Your task to perform on an android device: find which apps use the phone's location Image 0: 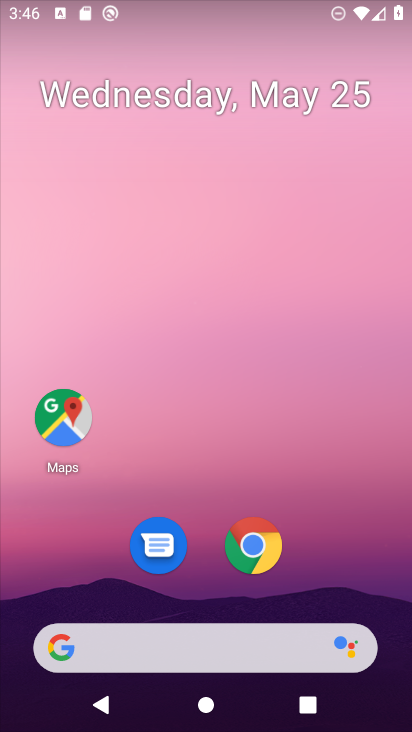
Step 0: click (376, 559)
Your task to perform on an android device: find which apps use the phone's location Image 1: 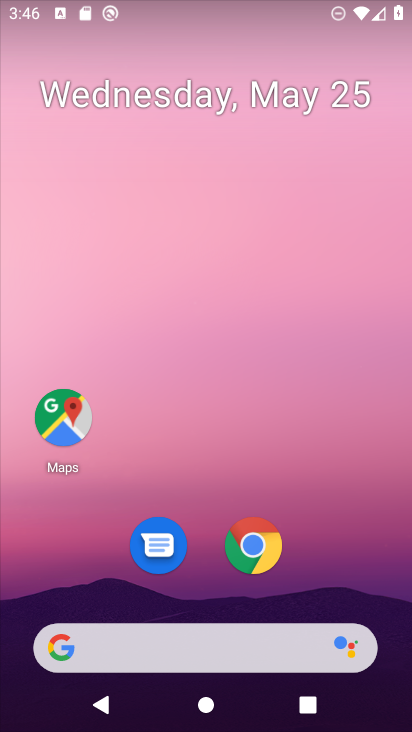
Step 1: drag from (376, 559) to (320, 220)
Your task to perform on an android device: find which apps use the phone's location Image 2: 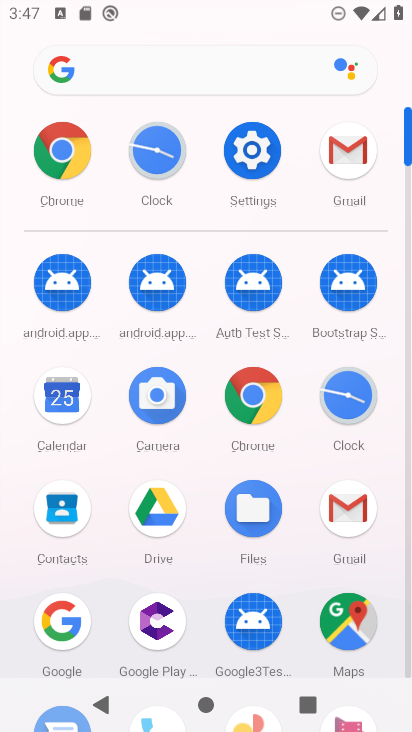
Step 2: click (244, 180)
Your task to perform on an android device: find which apps use the phone's location Image 3: 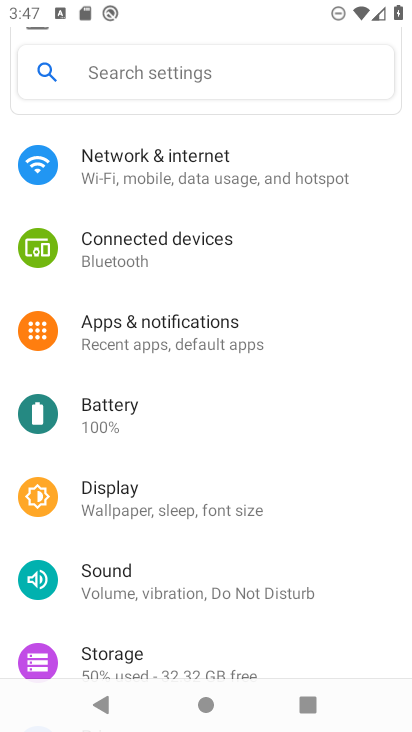
Step 3: drag from (240, 625) to (236, 359)
Your task to perform on an android device: find which apps use the phone's location Image 4: 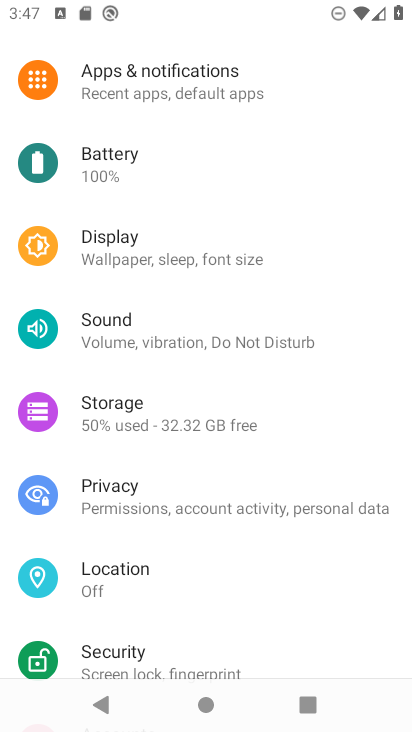
Step 4: click (191, 557)
Your task to perform on an android device: find which apps use the phone's location Image 5: 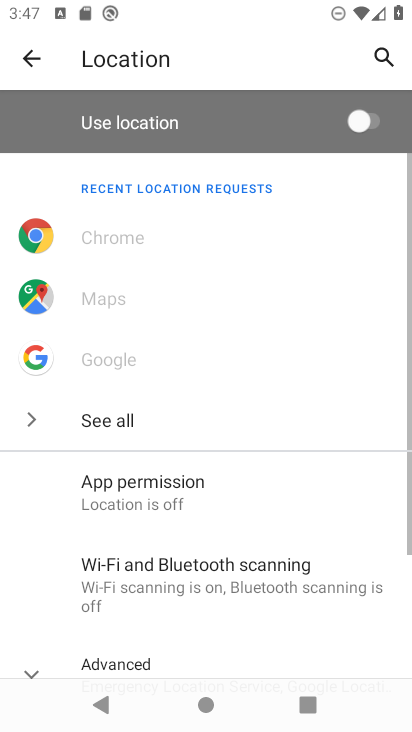
Step 5: task complete